Your task to perform on an android device: Check the news Image 0: 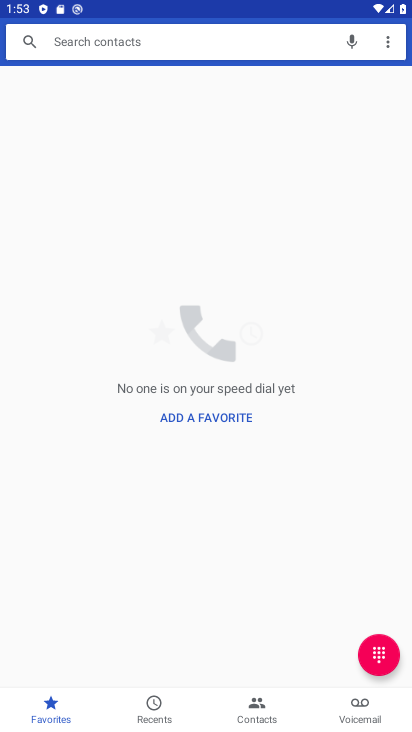
Step 0: press home button
Your task to perform on an android device: Check the news Image 1: 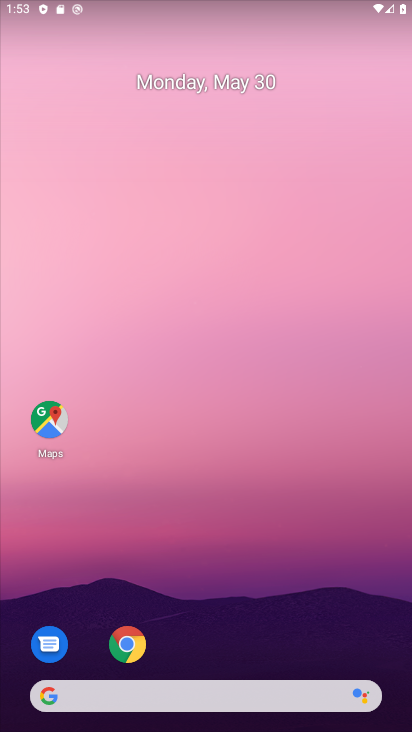
Step 1: click (195, 698)
Your task to perform on an android device: Check the news Image 2: 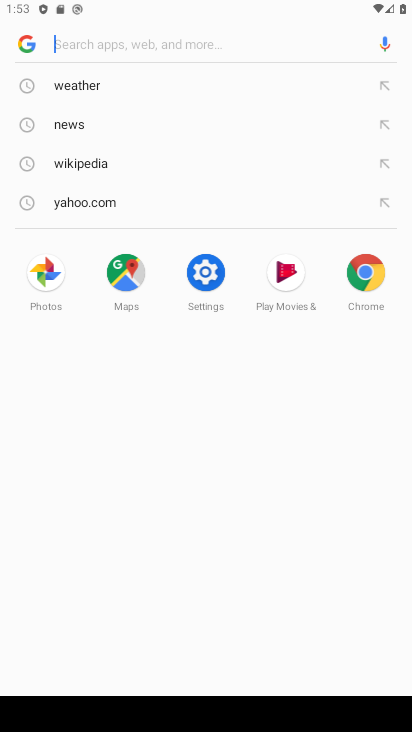
Step 2: click (63, 120)
Your task to perform on an android device: Check the news Image 3: 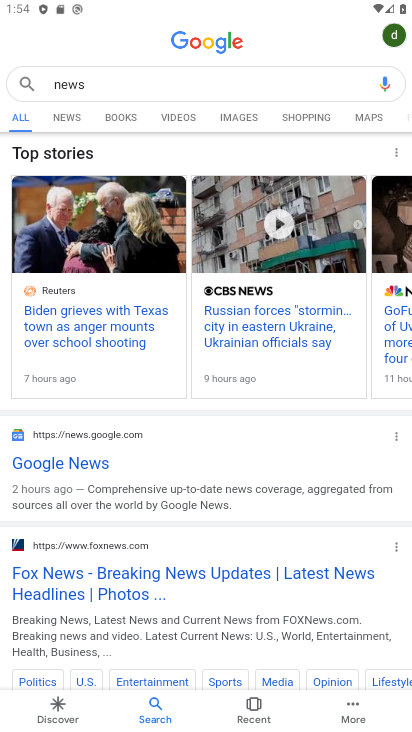
Step 3: task complete